Your task to perform on an android device: stop showing notifications on the lock screen Image 0: 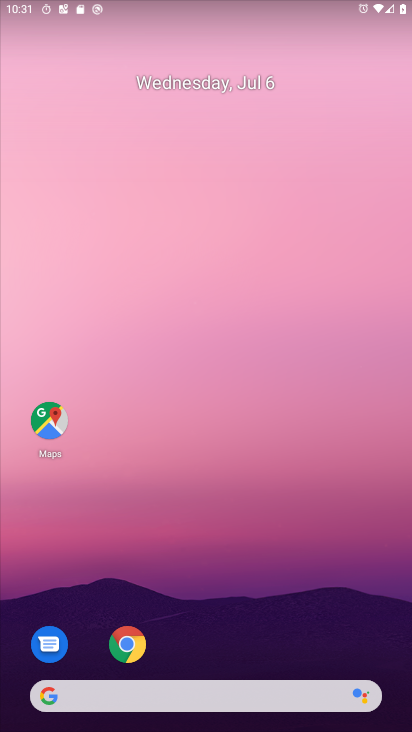
Step 0: drag from (196, 631) to (236, 72)
Your task to perform on an android device: stop showing notifications on the lock screen Image 1: 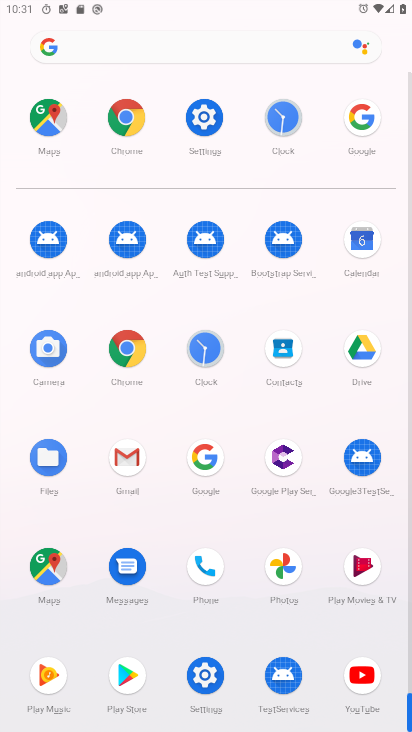
Step 1: drag from (196, 525) to (215, 272)
Your task to perform on an android device: stop showing notifications on the lock screen Image 2: 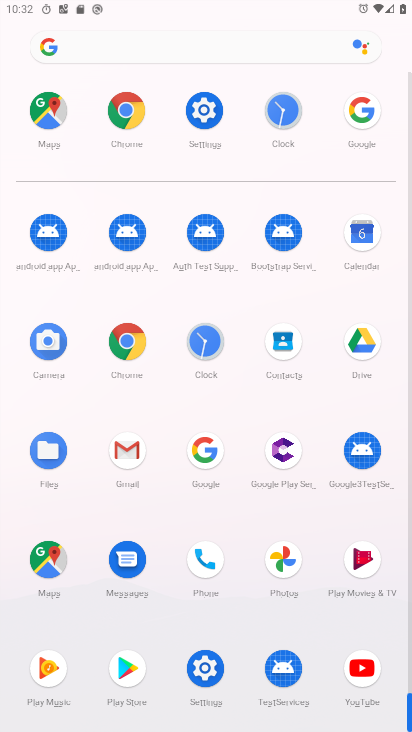
Step 2: click (214, 118)
Your task to perform on an android device: stop showing notifications on the lock screen Image 3: 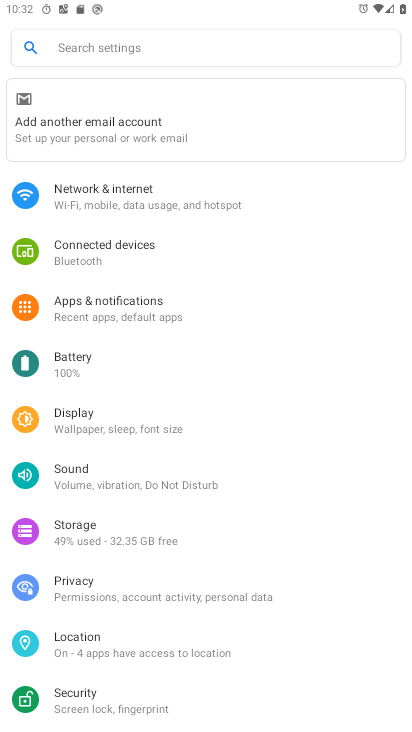
Step 3: click (146, 320)
Your task to perform on an android device: stop showing notifications on the lock screen Image 4: 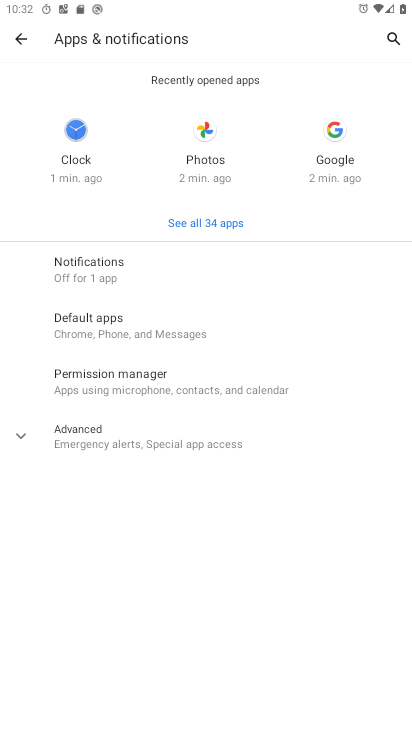
Step 4: click (149, 278)
Your task to perform on an android device: stop showing notifications on the lock screen Image 5: 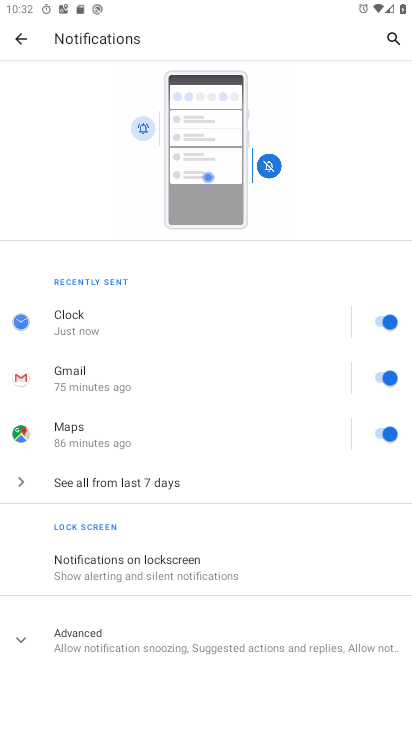
Step 5: drag from (143, 568) to (178, 394)
Your task to perform on an android device: stop showing notifications on the lock screen Image 6: 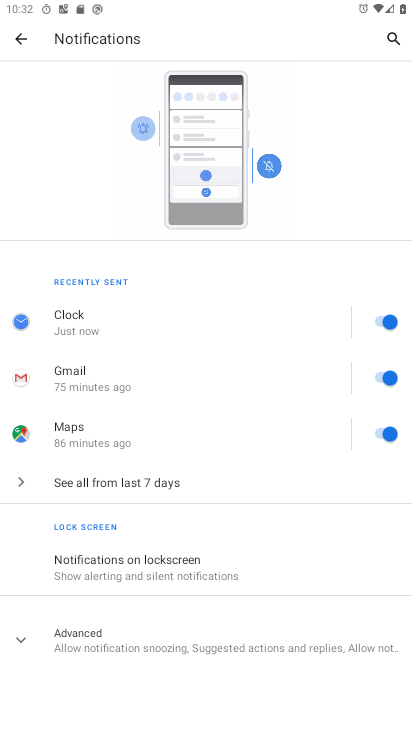
Step 6: click (165, 630)
Your task to perform on an android device: stop showing notifications on the lock screen Image 7: 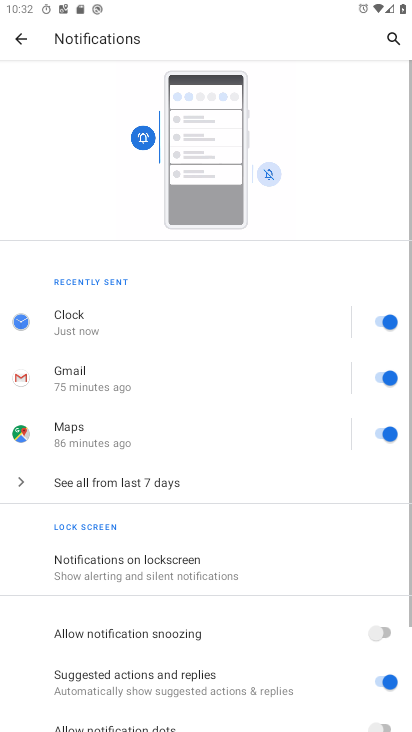
Step 7: click (182, 565)
Your task to perform on an android device: stop showing notifications on the lock screen Image 8: 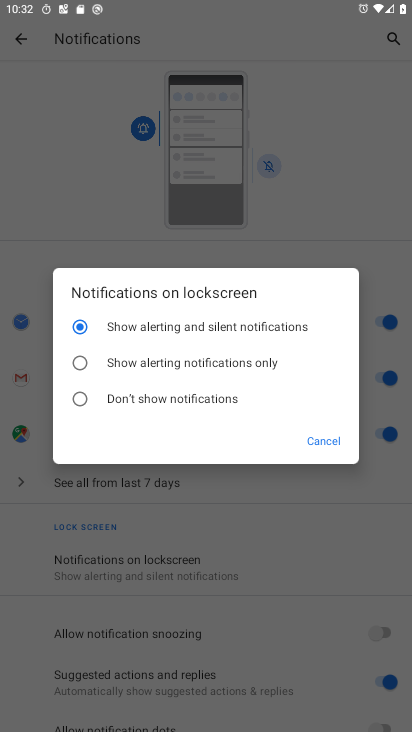
Step 8: click (204, 396)
Your task to perform on an android device: stop showing notifications on the lock screen Image 9: 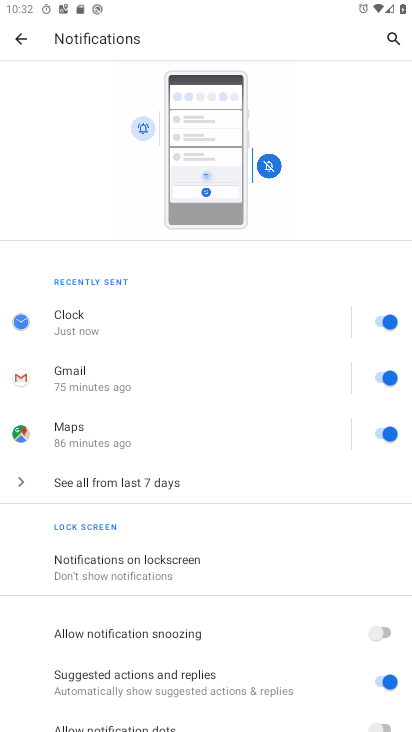
Step 9: task complete